Your task to perform on an android device: create a new album in the google photos Image 0: 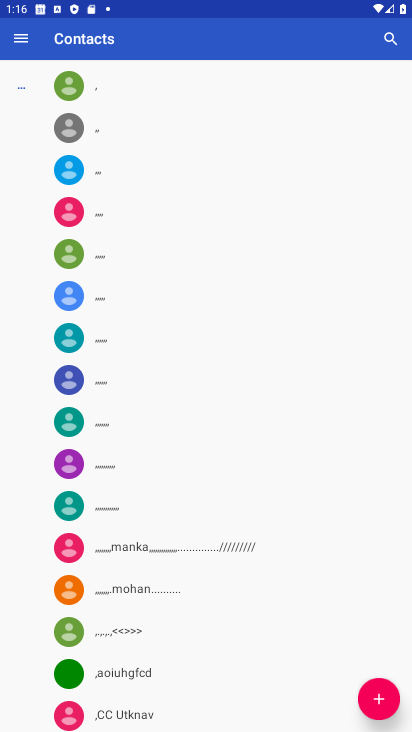
Step 0: press home button
Your task to perform on an android device: create a new album in the google photos Image 1: 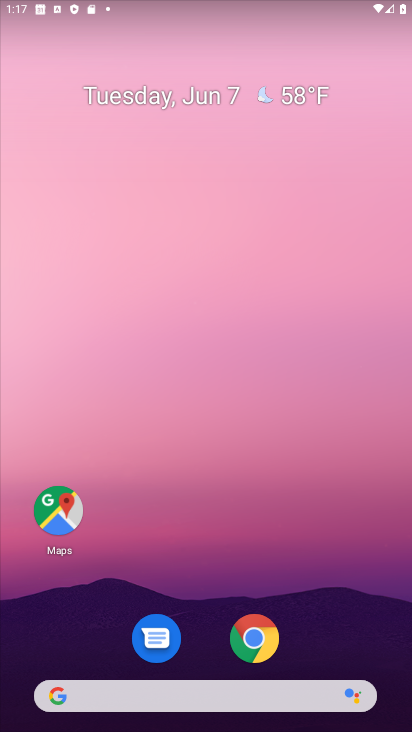
Step 1: drag from (189, 616) to (192, 298)
Your task to perform on an android device: create a new album in the google photos Image 2: 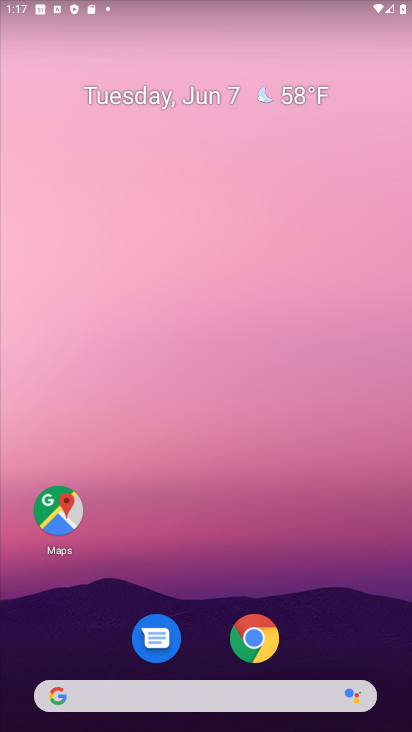
Step 2: drag from (195, 627) to (258, 203)
Your task to perform on an android device: create a new album in the google photos Image 3: 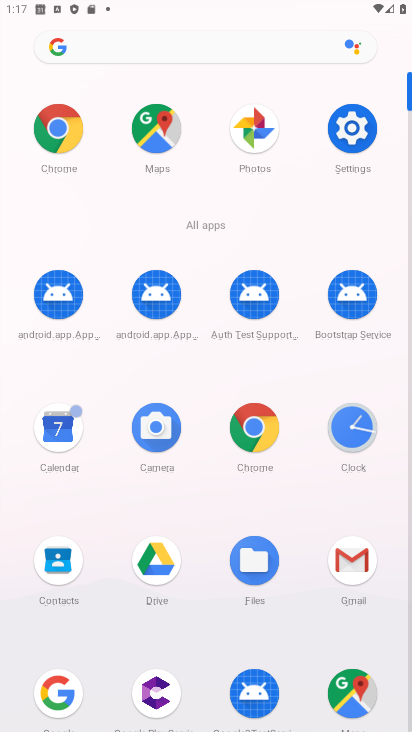
Step 3: click (256, 122)
Your task to perform on an android device: create a new album in the google photos Image 4: 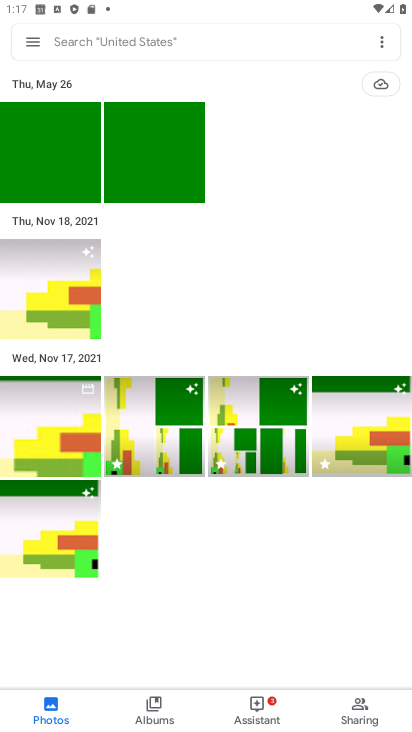
Step 4: click (159, 706)
Your task to perform on an android device: create a new album in the google photos Image 5: 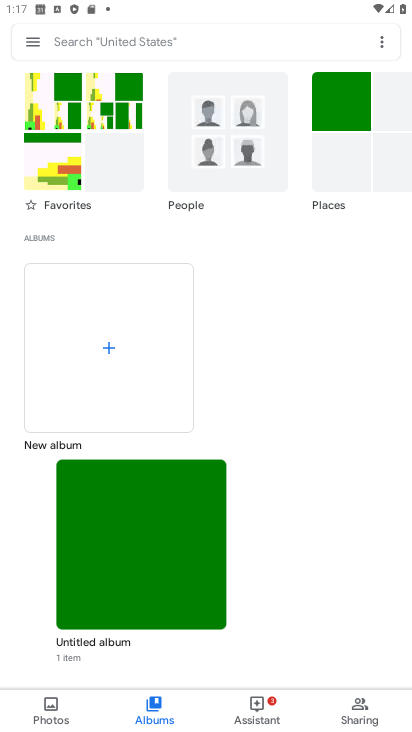
Step 5: click (113, 349)
Your task to perform on an android device: create a new album in the google photos Image 6: 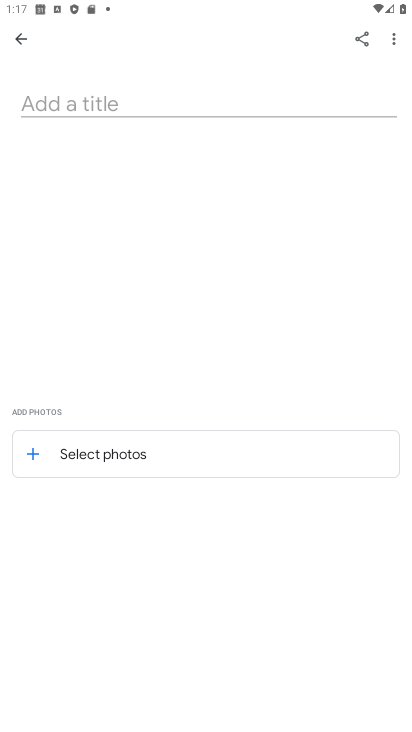
Step 6: click (108, 450)
Your task to perform on an android device: create a new album in the google photos Image 7: 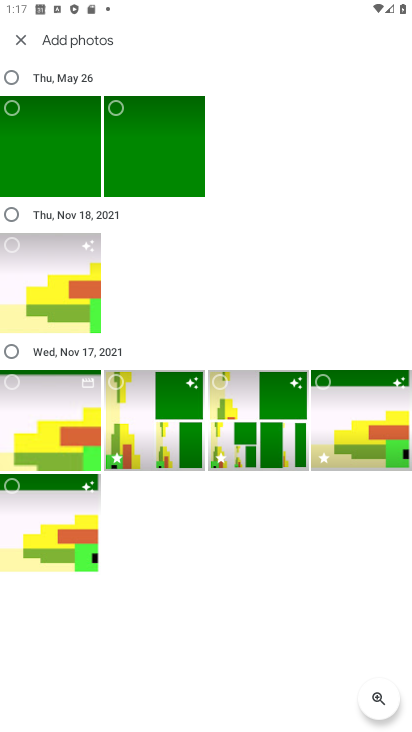
Step 7: click (13, 242)
Your task to perform on an android device: create a new album in the google photos Image 8: 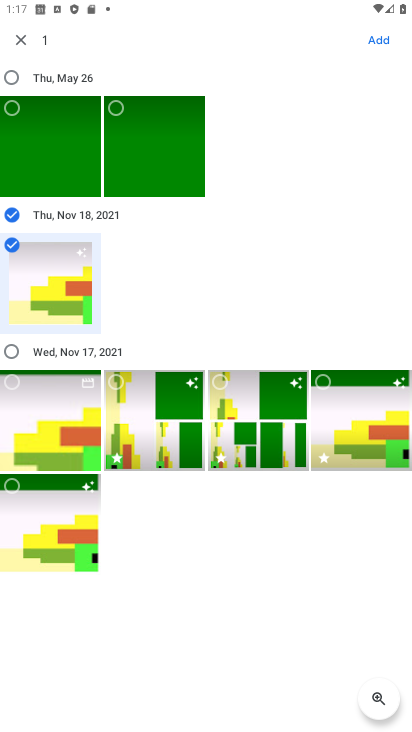
Step 8: click (7, 100)
Your task to perform on an android device: create a new album in the google photos Image 9: 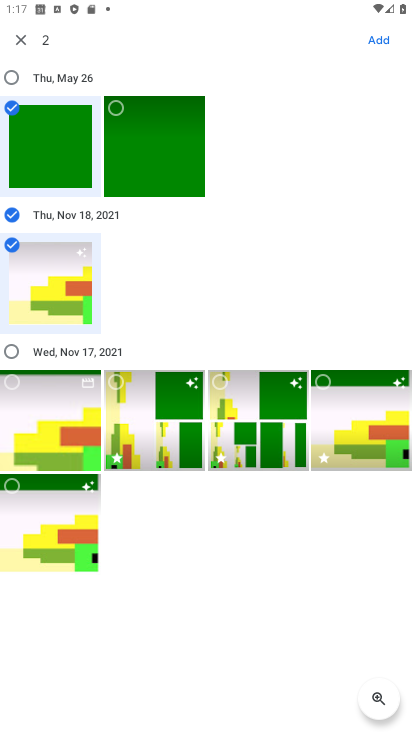
Step 9: click (377, 38)
Your task to perform on an android device: create a new album in the google photos Image 10: 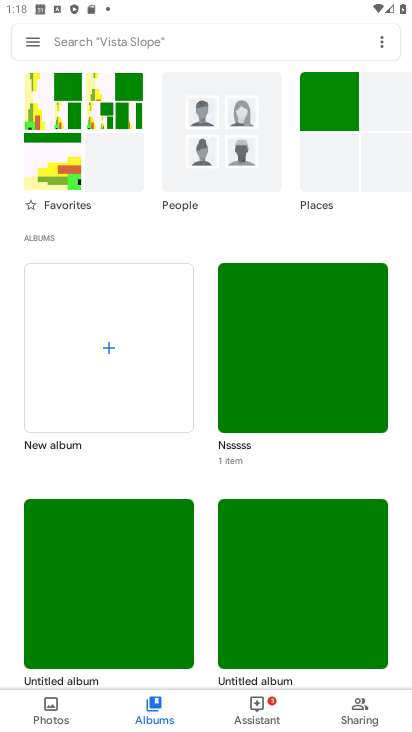
Step 10: task complete